Your task to perform on an android device: turn on notifications settings in the gmail app Image 0: 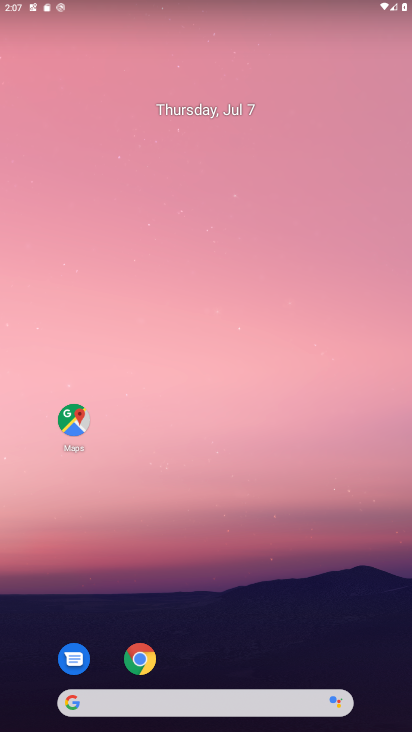
Step 0: drag from (192, 660) to (227, 71)
Your task to perform on an android device: turn on notifications settings in the gmail app Image 1: 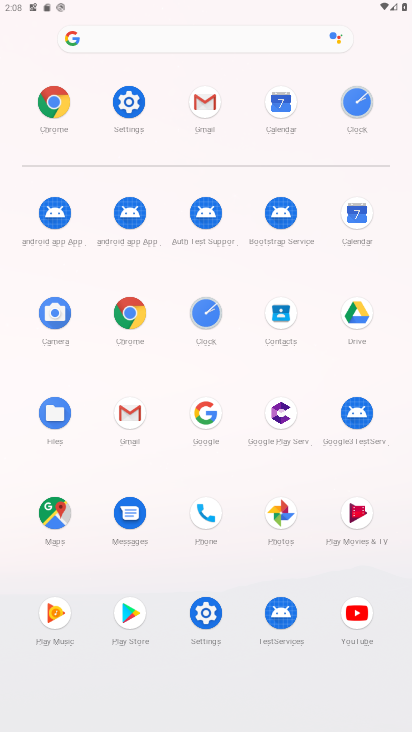
Step 1: click (134, 413)
Your task to perform on an android device: turn on notifications settings in the gmail app Image 2: 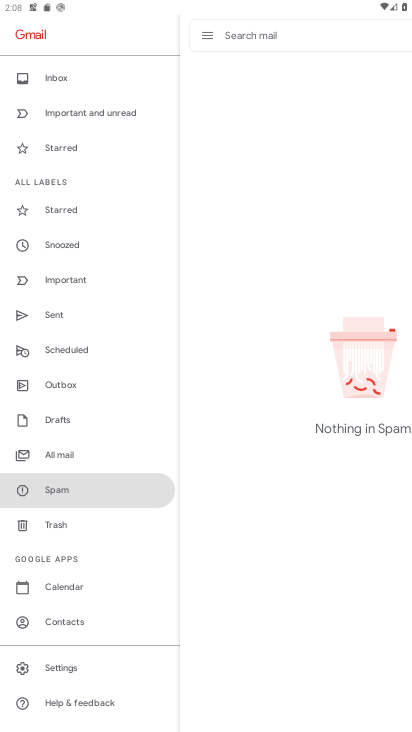
Step 2: click (59, 673)
Your task to perform on an android device: turn on notifications settings in the gmail app Image 3: 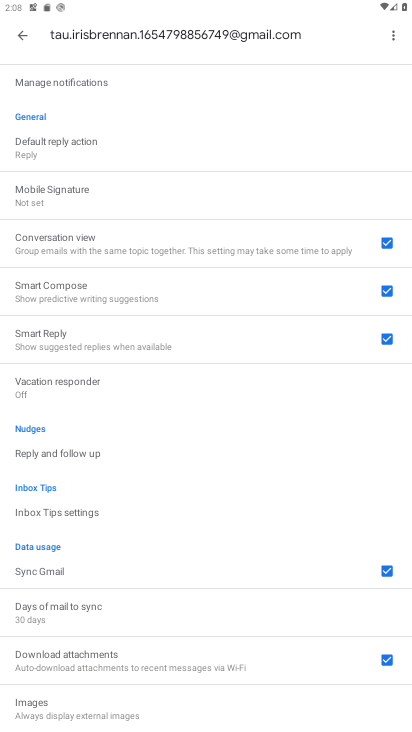
Step 3: click (83, 92)
Your task to perform on an android device: turn on notifications settings in the gmail app Image 4: 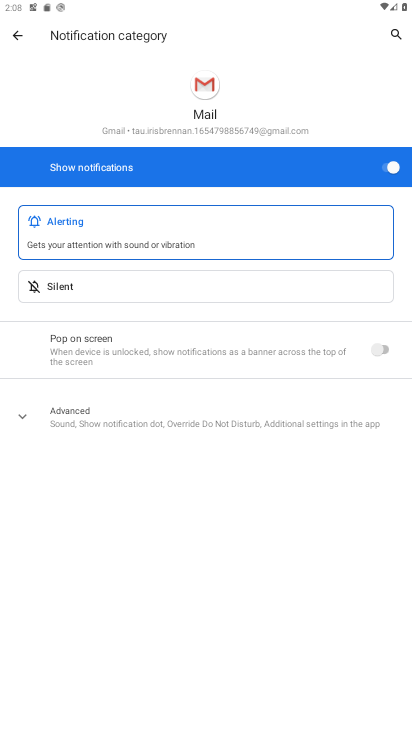
Step 4: task complete